Your task to perform on an android device: Go to Amazon Image 0: 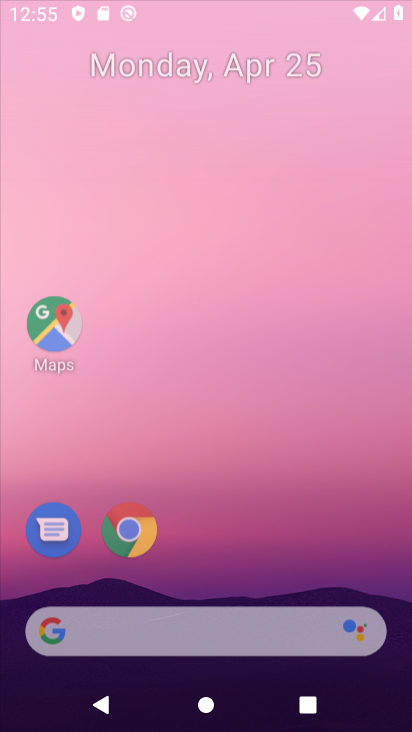
Step 0: press home button
Your task to perform on an android device: Go to Amazon Image 1: 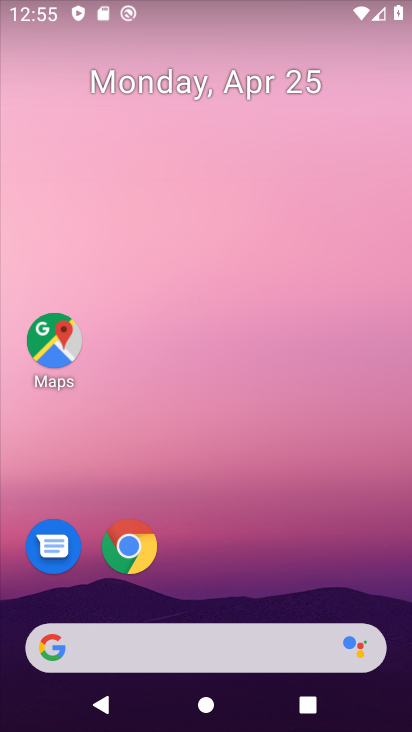
Step 1: click (140, 558)
Your task to perform on an android device: Go to Amazon Image 2: 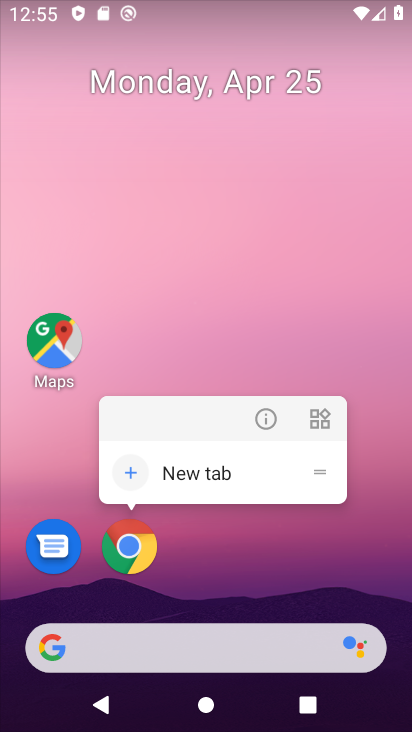
Step 2: click (124, 535)
Your task to perform on an android device: Go to Amazon Image 3: 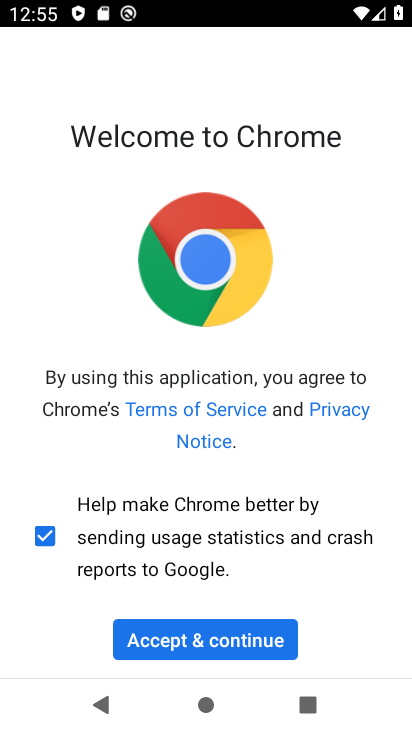
Step 3: click (229, 625)
Your task to perform on an android device: Go to Amazon Image 4: 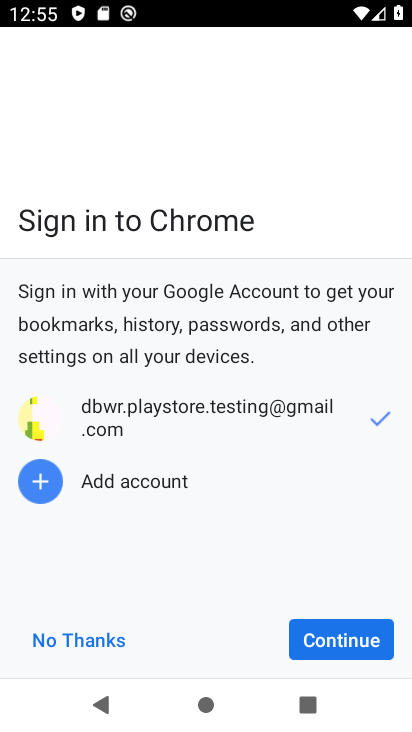
Step 4: click (329, 620)
Your task to perform on an android device: Go to Amazon Image 5: 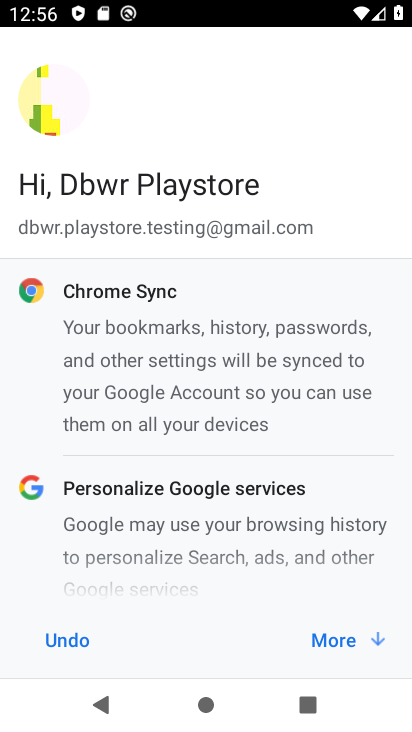
Step 5: click (332, 637)
Your task to perform on an android device: Go to Amazon Image 6: 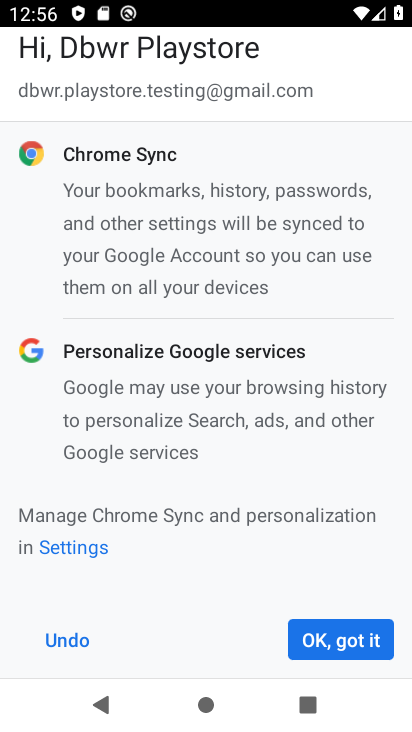
Step 6: click (327, 637)
Your task to perform on an android device: Go to Amazon Image 7: 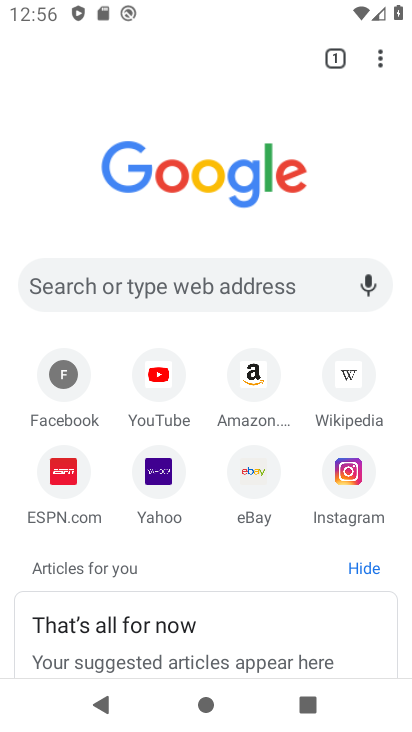
Step 7: click (254, 381)
Your task to perform on an android device: Go to Amazon Image 8: 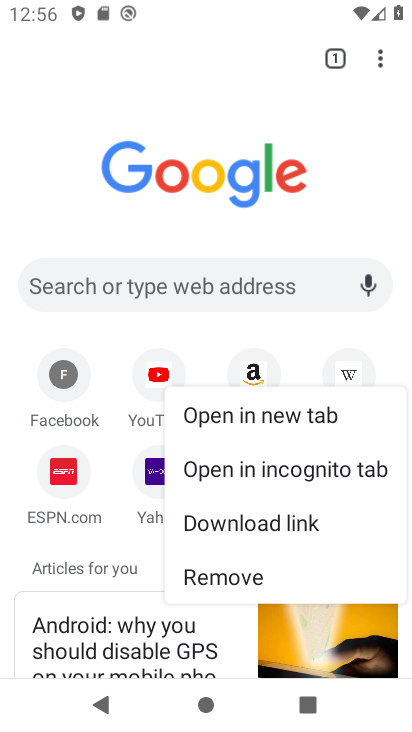
Step 8: click (264, 370)
Your task to perform on an android device: Go to Amazon Image 9: 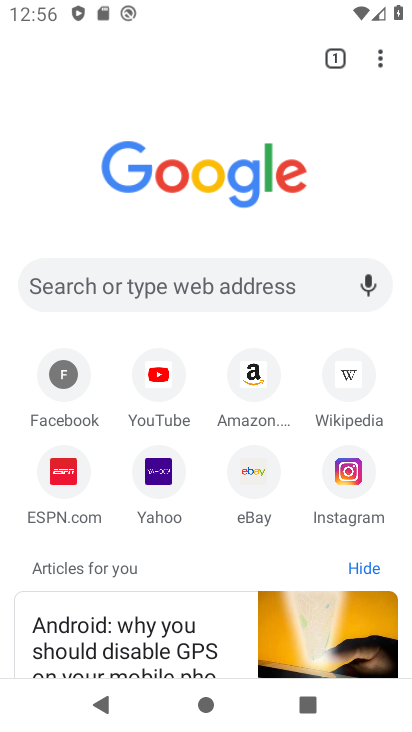
Step 9: click (263, 369)
Your task to perform on an android device: Go to Amazon Image 10: 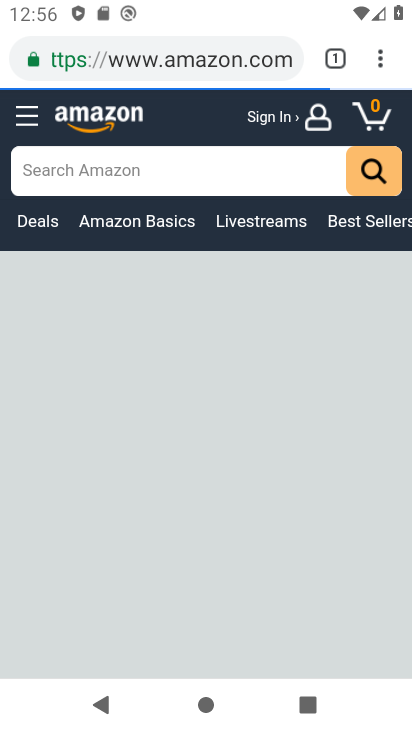
Step 10: task complete